Your task to perform on an android device: set the stopwatch Image 0: 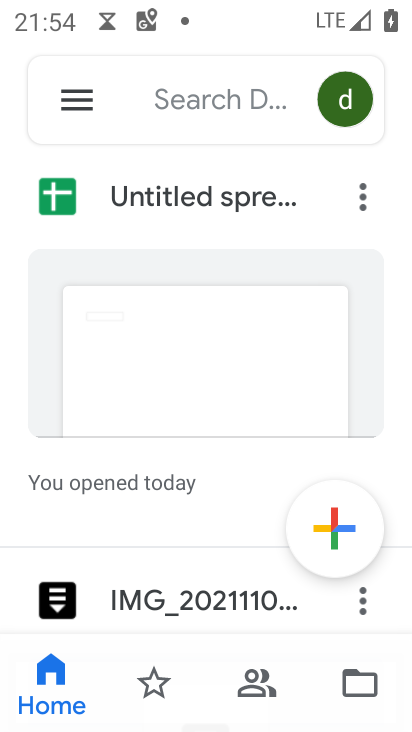
Step 0: press home button
Your task to perform on an android device: set the stopwatch Image 1: 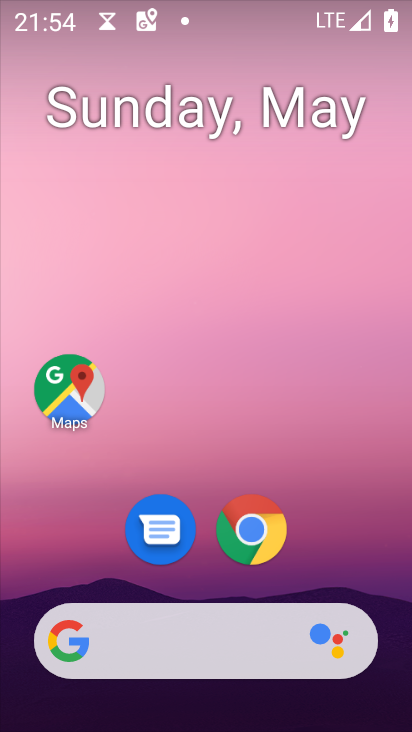
Step 1: drag from (344, 557) to (349, 4)
Your task to perform on an android device: set the stopwatch Image 2: 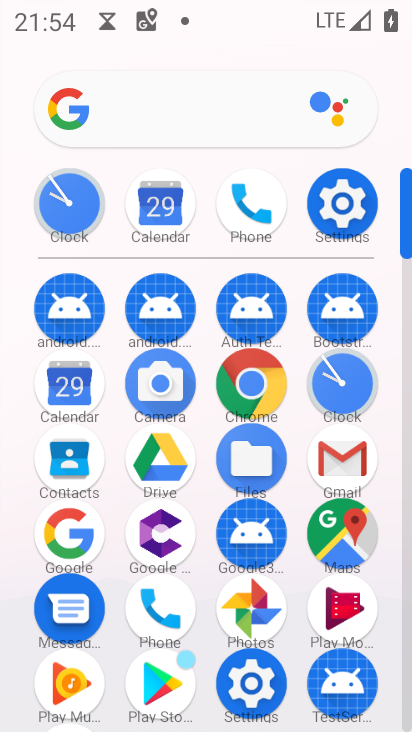
Step 2: click (340, 390)
Your task to perform on an android device: set the stopwatch Image 3: 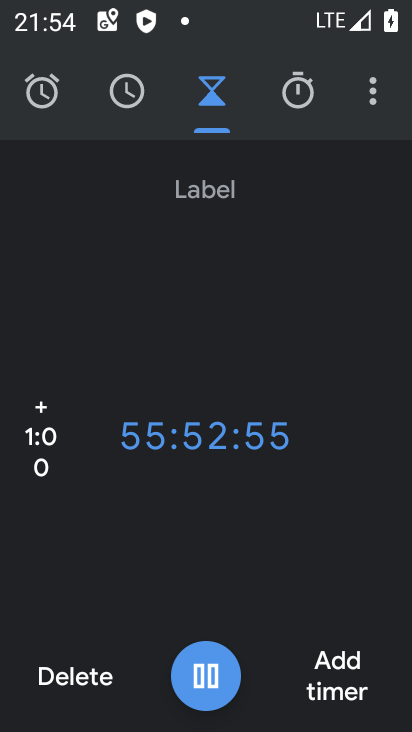
Step 3: click (281, 104)
Your task to perform on an android device: set the stopwatch Image 4: 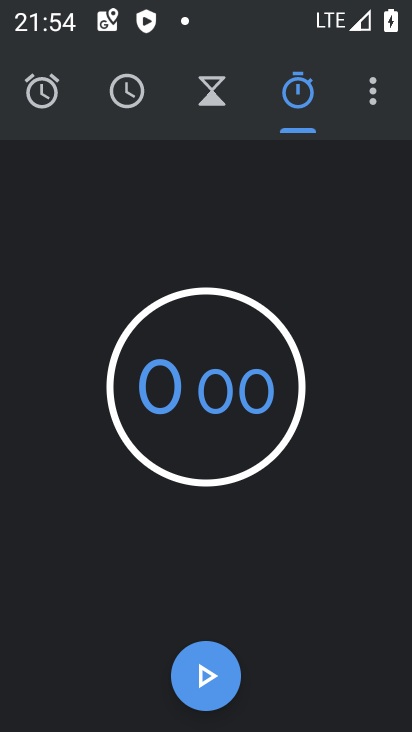
Step 4: click (197, 683)
Your task to perform on an android device: set the stopwatch Image 5: 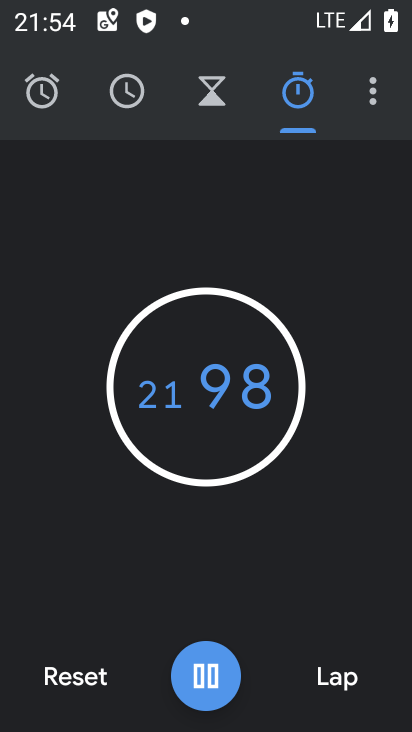
Step 5: task complete